Your task to perform on an android device: star an email in the gmail app Image 0: 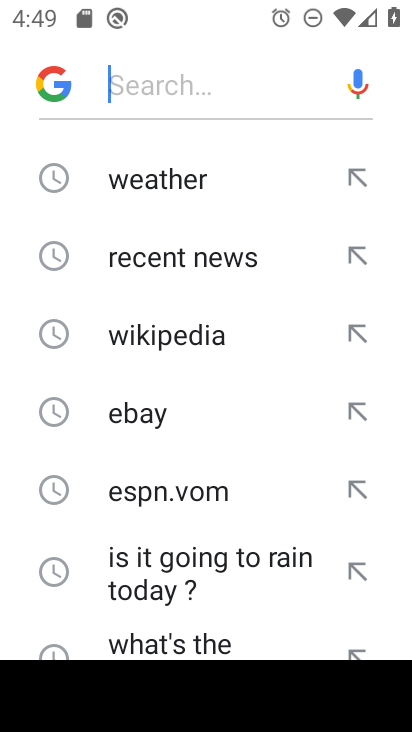
Step 0: press back button
Your task to perform on an android device: star an email in the gmail app Image 1: 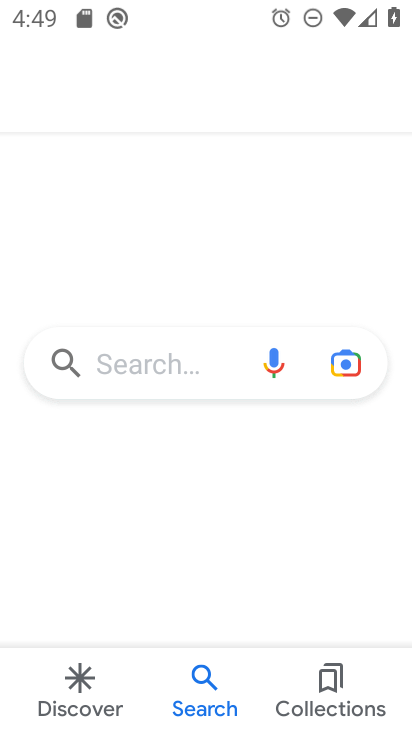
Step 1: press back button
Your task to perform on an android device: star an email in the gmail app Image 2: 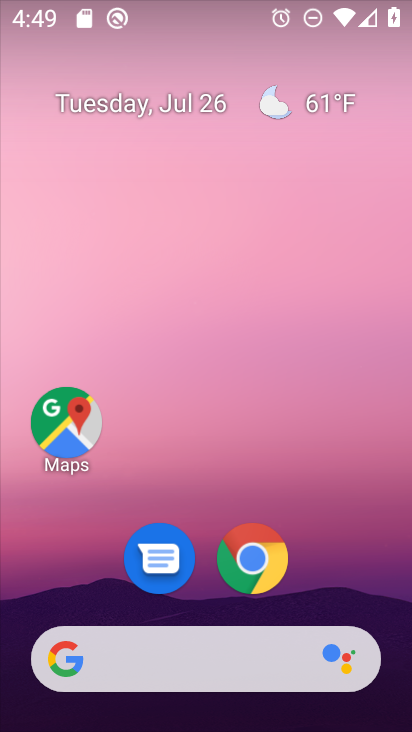
Step 2: drag from (73, 585) to (310, 30)
Your task to perform on an android device: star an email in the gmail app Image 3: 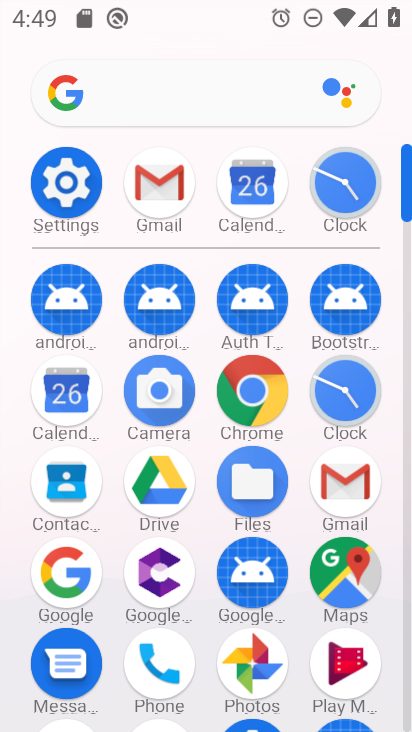
Step 3: click (151, 178)
Your task to perform on an android device: star an email in the gmail app Image 4: 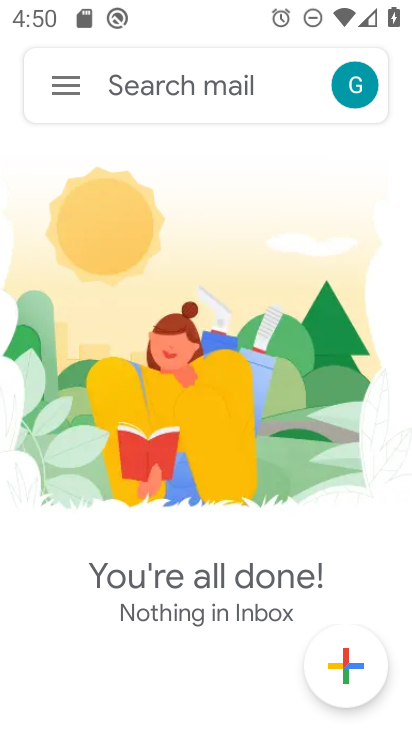
Step 4: click (61, 76)
Your task to perform on an android device: star an email in the gmail app Image 5: 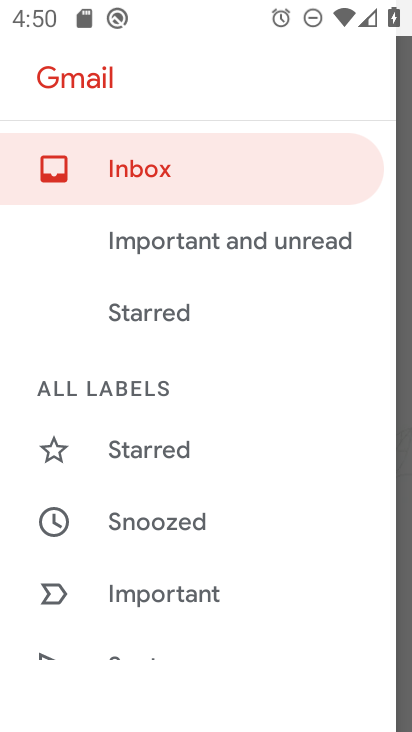
Step 5: drag from (160, 580) to (243, 76)
Your task to perform on an android device: star an email in the gmail app Image 6: 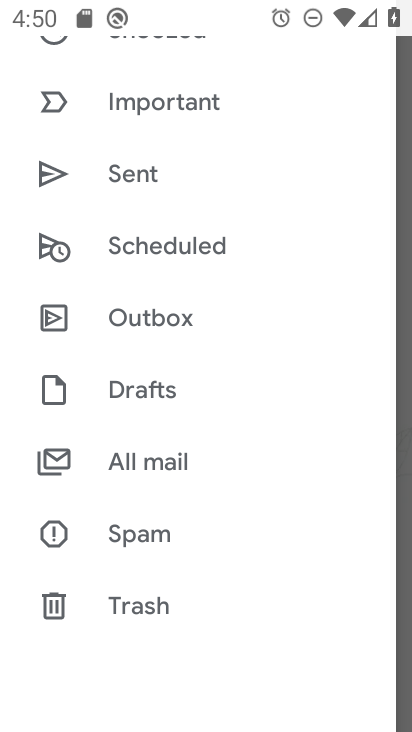
Step 6: click (154, 470)
Your task to perform on an android device: star an email in the gmail app Image 7: 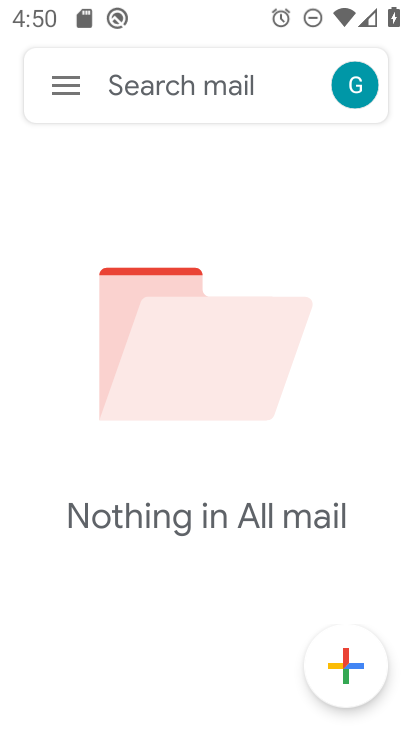
Step 7: task complete